Your task to perform on an android device: Go to settings Image 0: 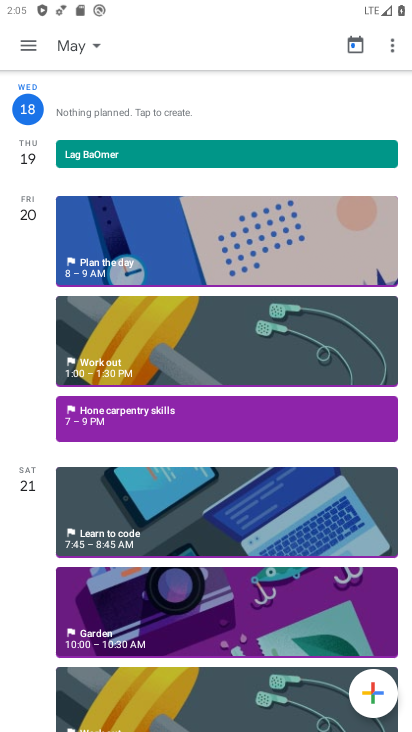
Step 0: press home button
Your task to perform on an android device: Go to settings Image 1: 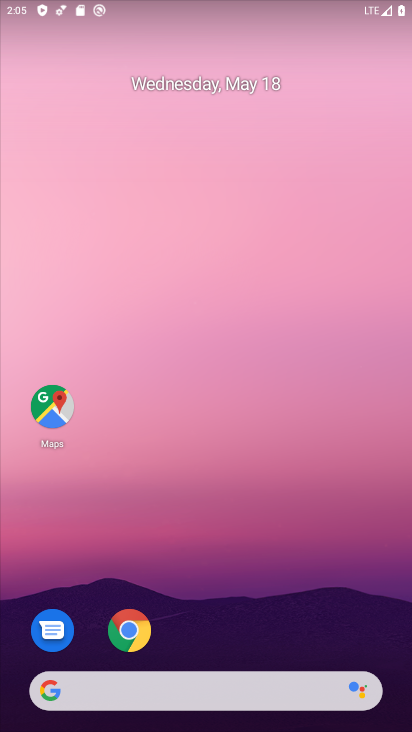
Step 1: drag from (209, 646) to (232, 116)
Your task to perform on an android device: Go to settings Image 2: 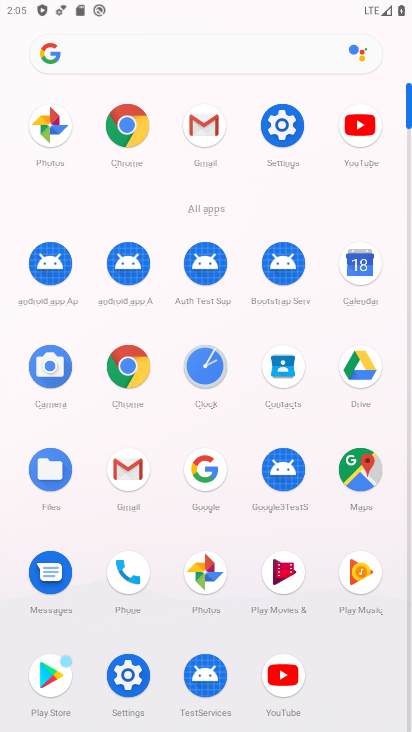
Step 2: click (273, 122)
Your task to perform on an android device: Go to settings Image 3: 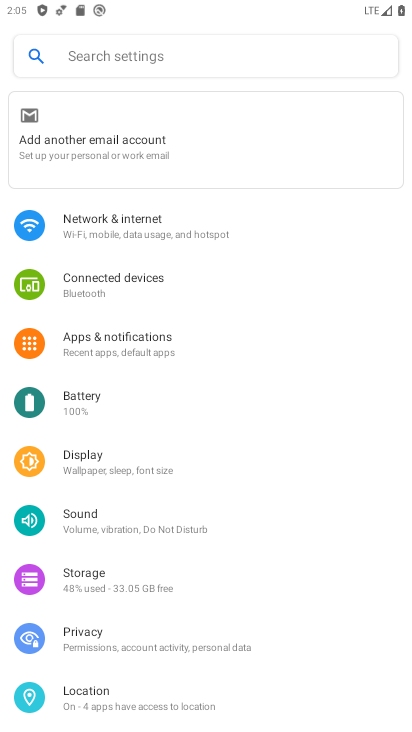
Step 3: task complete